Your task to perform on an android device: turn off notifications in google photos Image 0: 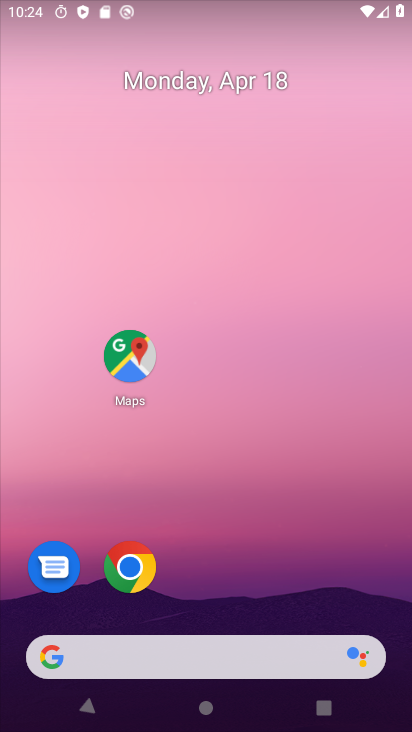
Step 0: drag from (285, 687) to (338, 302)
Your task to perform on an android device: turn off notifications in google photos Image 1: 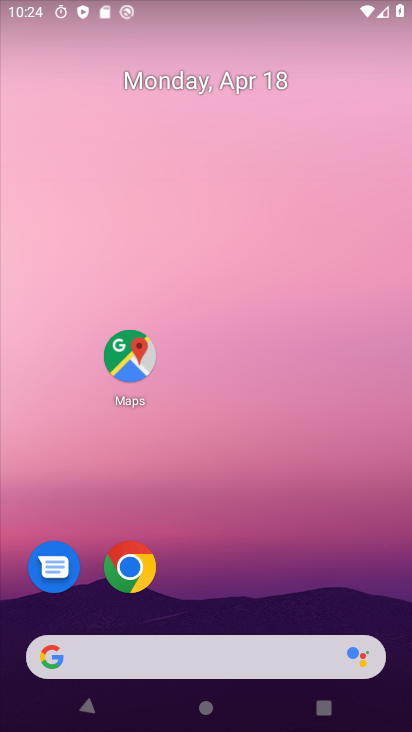
Step 1: drag from (204, 687) to (315, 217)
Your task to perform on an android device: turn off notifications in google photos Image 2: 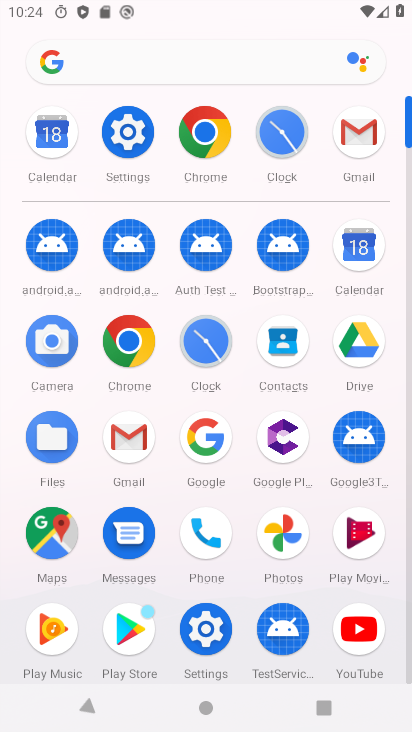
Step 2: click (286, 518)
Your task to perform on an android device: turn off notifications in google photos Image 3: 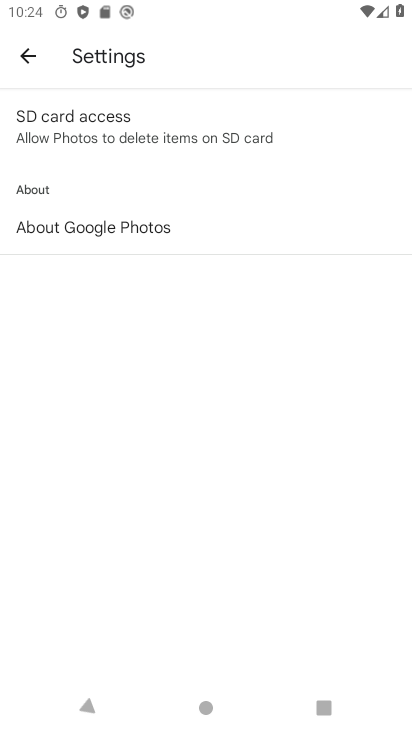
Step 3: click (24, 56)
Your task to perform on an android device: turn off notifications in google photos Image 4: 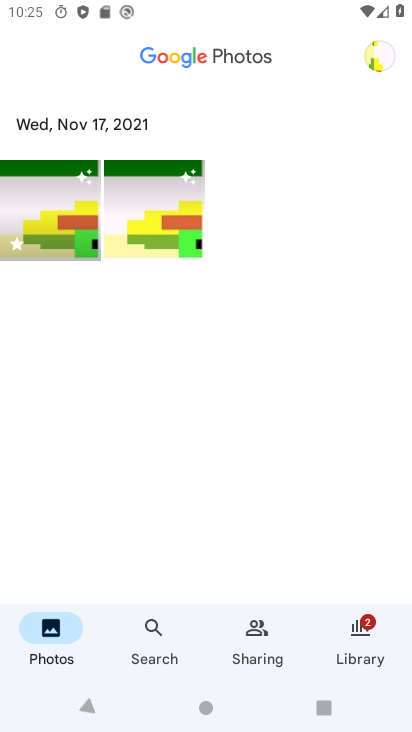
Step 4: click (378, 51)
Your task to perform on an android device: turn off notifications in google photos Image 5: 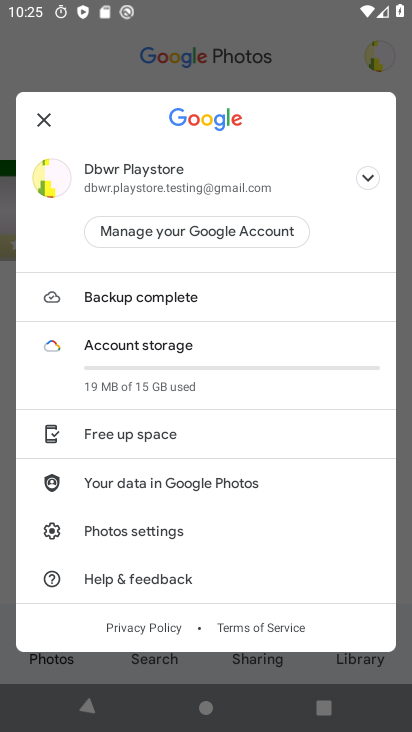
Step 5: click (154, 535)
Your task to perform on an android device: turn off notifications in google photos Image 6: 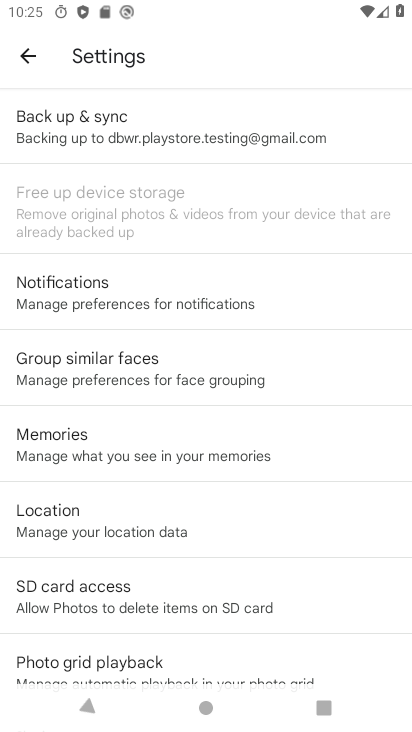
Step 6: drag from (116, 564) to (194, 461)
Your task to perform on an android device: turn off notifications in google photos Image 7: 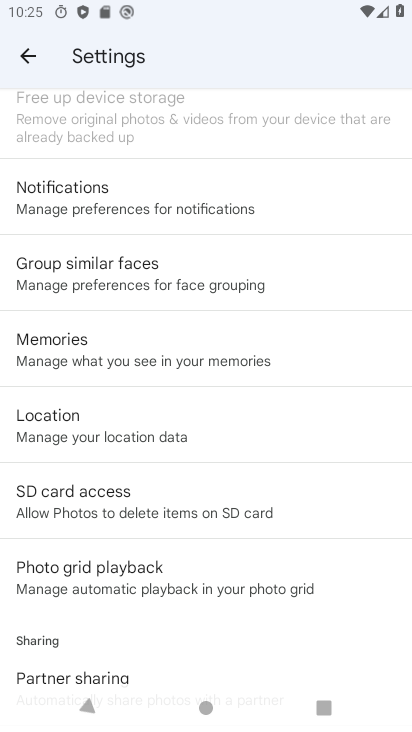
Step 7: click (131, 212)
Your task to perform on an android device: turn off notifications in google photos Image 8: 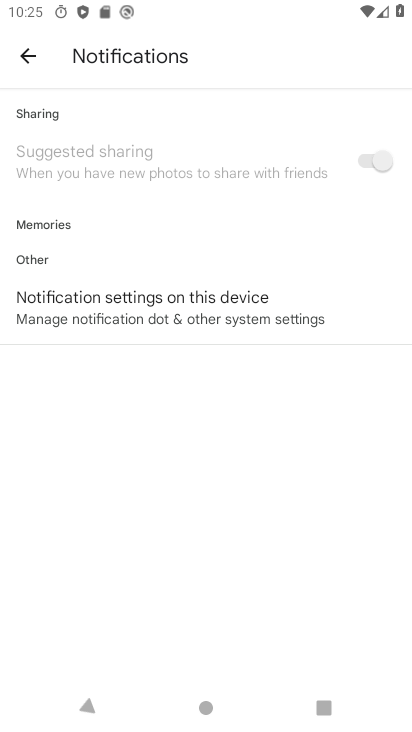
Step 8: click (138, 305)
Your task to perform on an android device: turn off notifications in google photos Image 9: 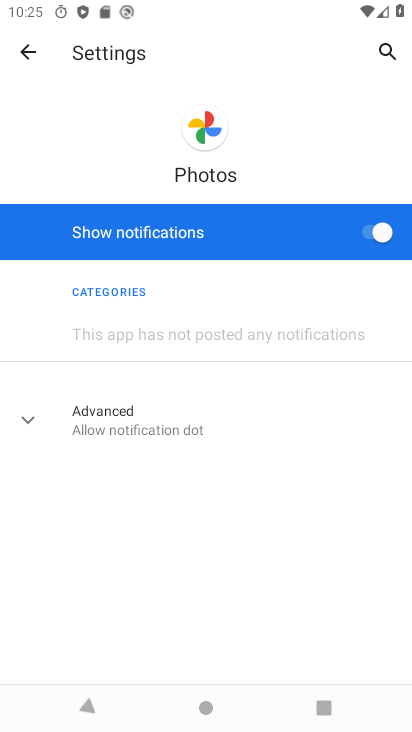
Step 9: click (368, 225)
Your task to perform on an android device: turn off notifications in google photos Image 10: 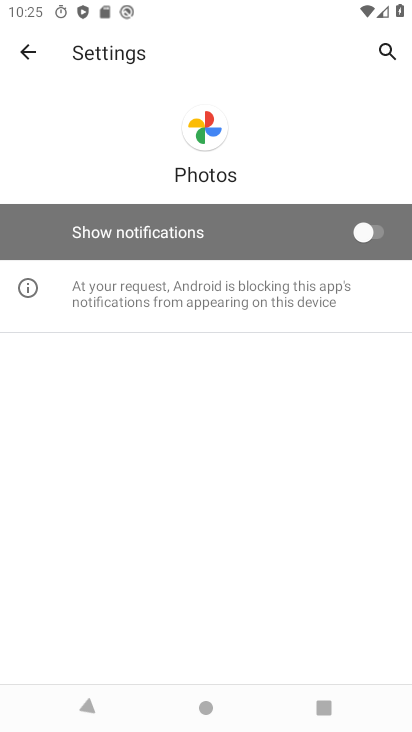
Step 10: task complete